Your task to perform on an android device: refresh tabs in the chrome app Image 0: 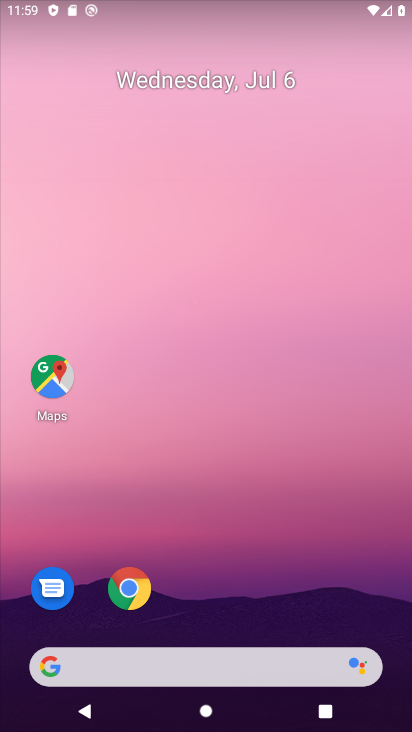
Step 0: drag from (186, 621) to (163, 72)
Your task to perform on an android device: refresh tabs in the chrome app Image 1: 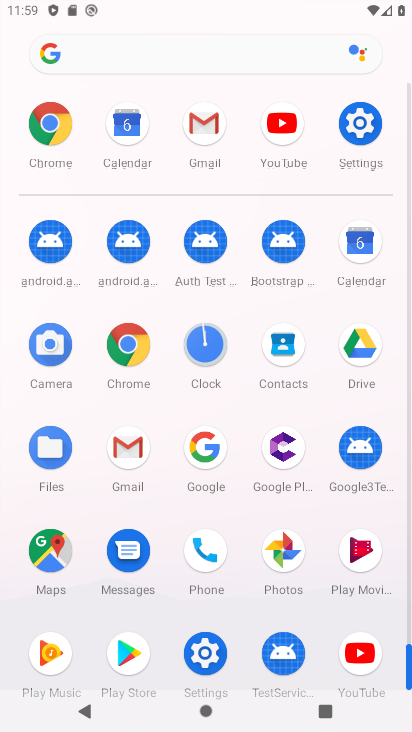
Step 1: click (41, 125)
Your task to perform on an android device: refresh tabs in the chrome app Image 2: 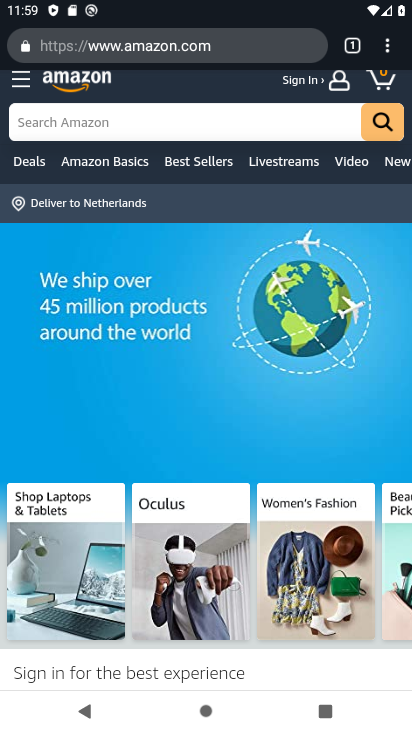
Step 2: click (390, 46)
Your task to perform on an android device: refresh tabs in the chrome app Image 3: 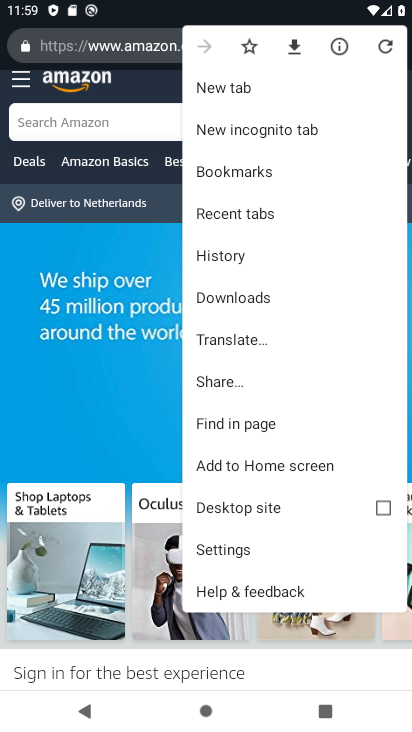
Step 3: click (390, 46)
Your task to perform on an android device: refresh tabs in the chrome app Image 4: 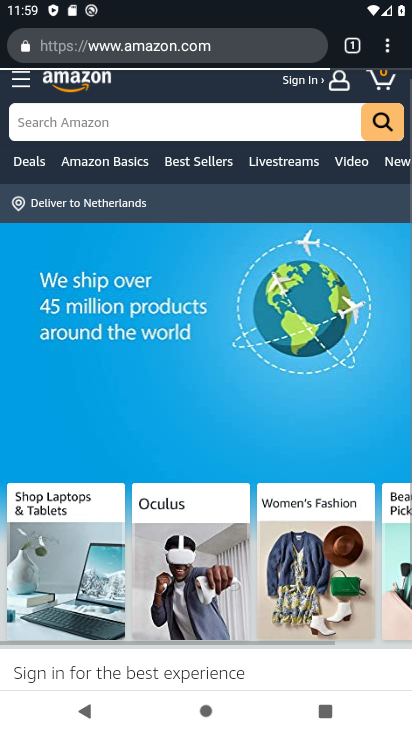
Step 4: task complete